Your task to perform on an android device: Open Maps and search for coffee Image 0: 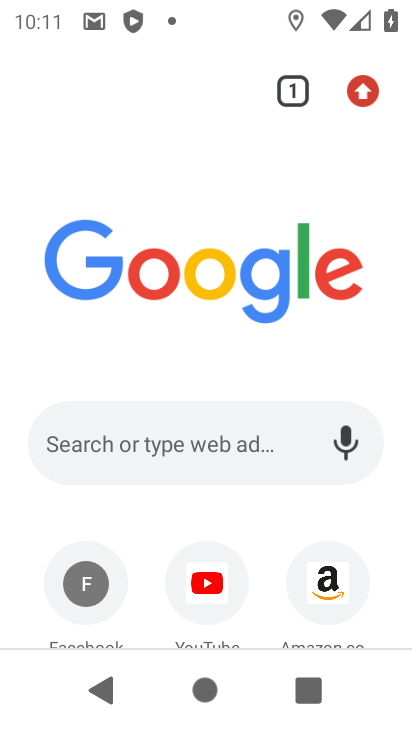
Step 0: press home button
Your task to perform on an android device: Open Maps and search for coffee Image 1: 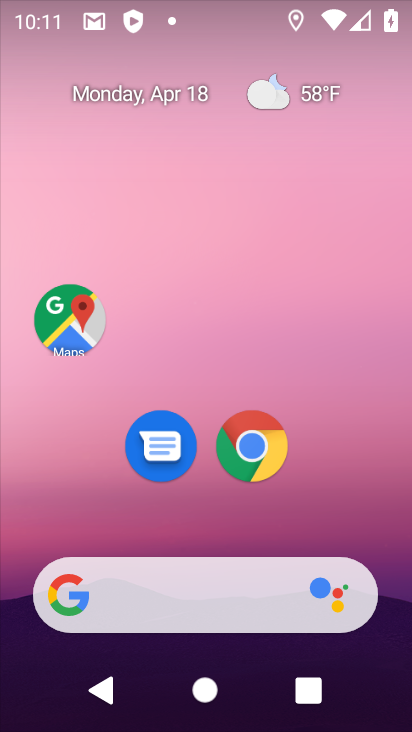
Step 1: drag from (364, 496) to (359, 114)
Your task to perform on an android device: Open Maps and search for coffee Image 2: 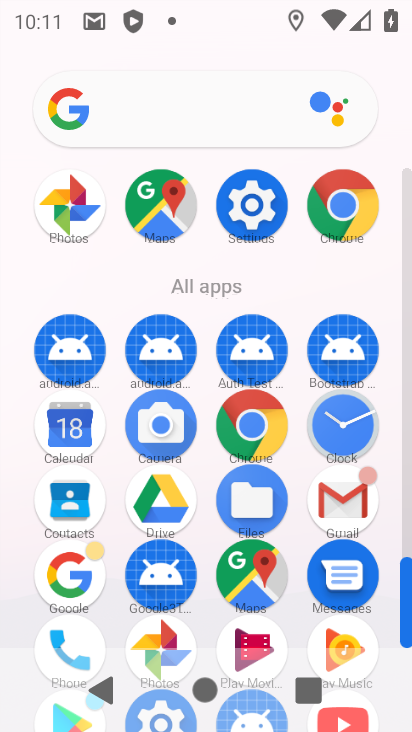
Step 2: click (256, 573)
Your task to perform on an android device: Open Maps and search for coffee Image 3: 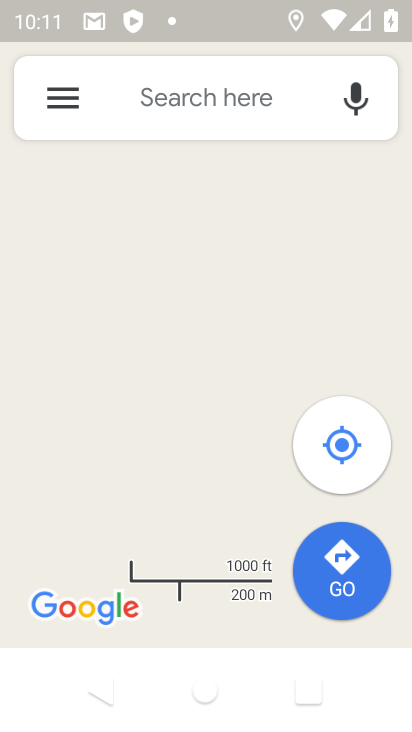
Step 3: click (207, 103)
Your task to perform on an android device: Open Maps and search for coffee Image 4: 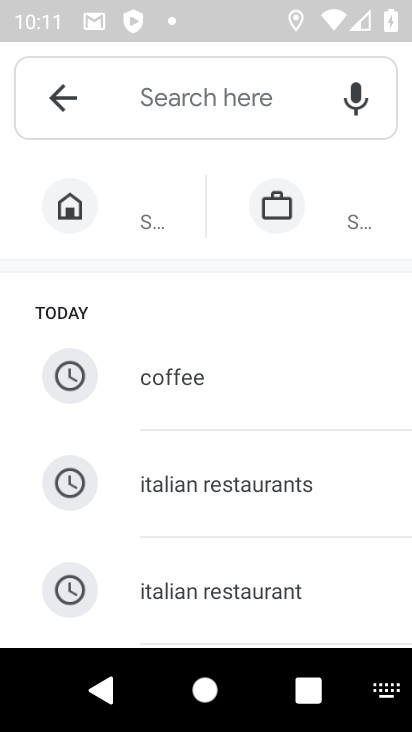
Step 4: type "coffee"
Your task to perform on an android device: Open Maps and search for coffee Image 5: 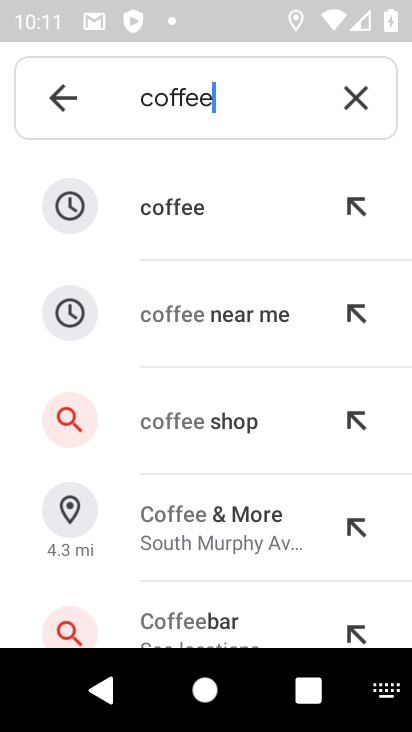
Step 5: click (209, 205)
Your task to perform on an android device: Open Maps and search for coffee Image 6: 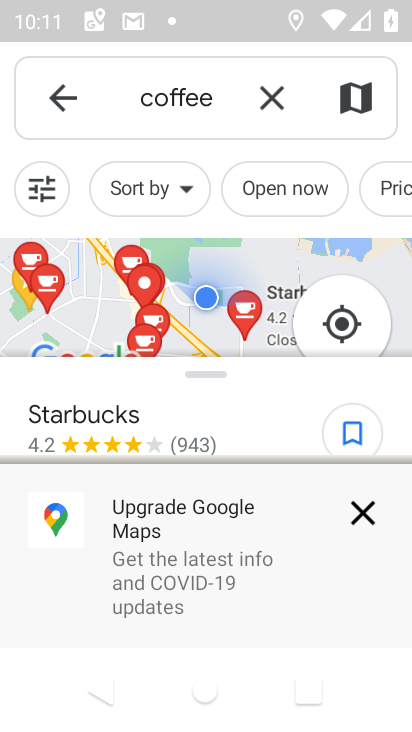
Step 6: task complete